Your task to perform on an android device: turn on priority inbox in the gmail app Image 0: 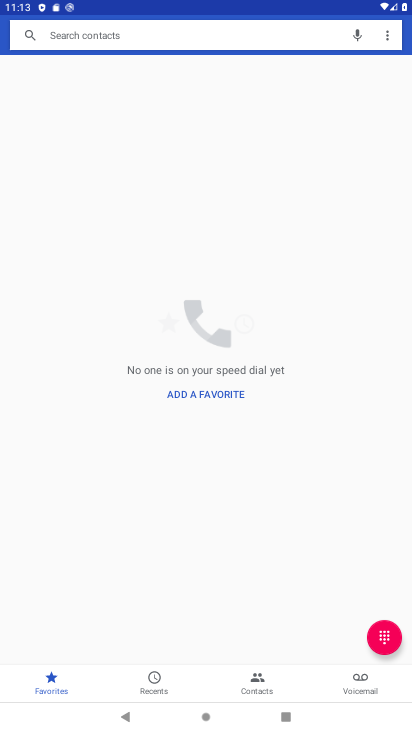
Step 0: press home button
Your task to perform on an android device: turn on priority inbox in the gmail app Image 1: 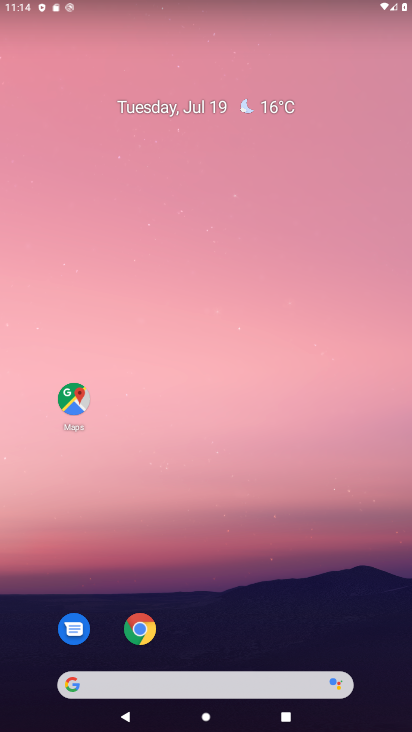
Step 1: drag from (386, 726) to (330, 211)
Your task to perform on an android device: turn on priority inbox in the gmail app Image 2: 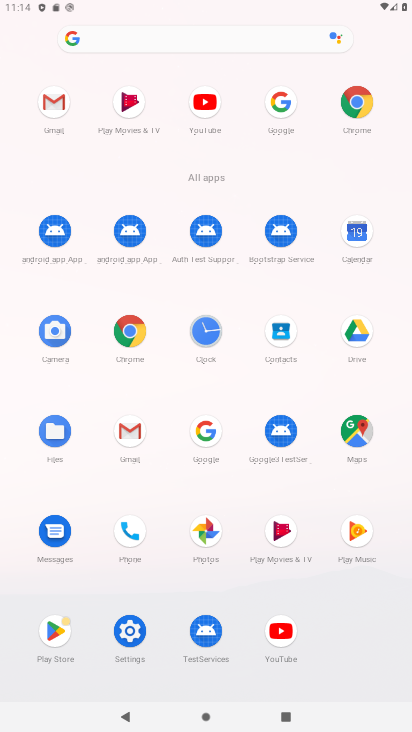
Step 2: click (59, 103)
Your task to perform on an android device: turn on priority inbox in the gmail app Image 3: 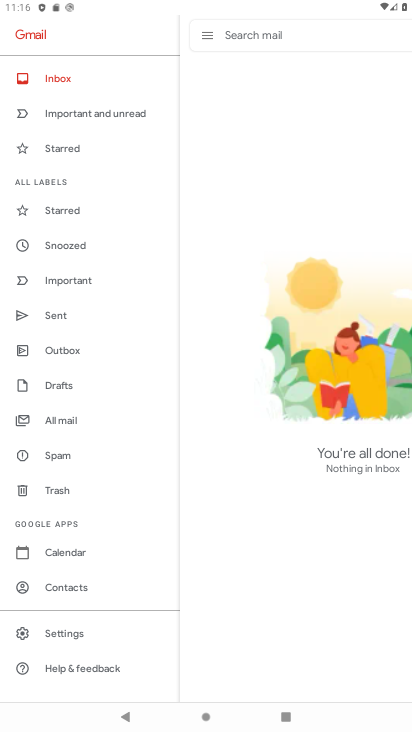
Step 3: click (45, 632)
Your task to perform on an android device: turn on priority inbox in the gmail app Image 4: 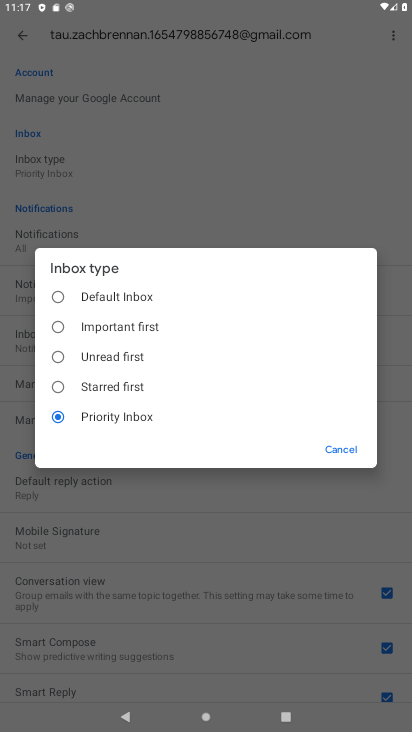
Step 4: task complete